Your task to perform on an android device: Search for the best 4K TV Image 0: 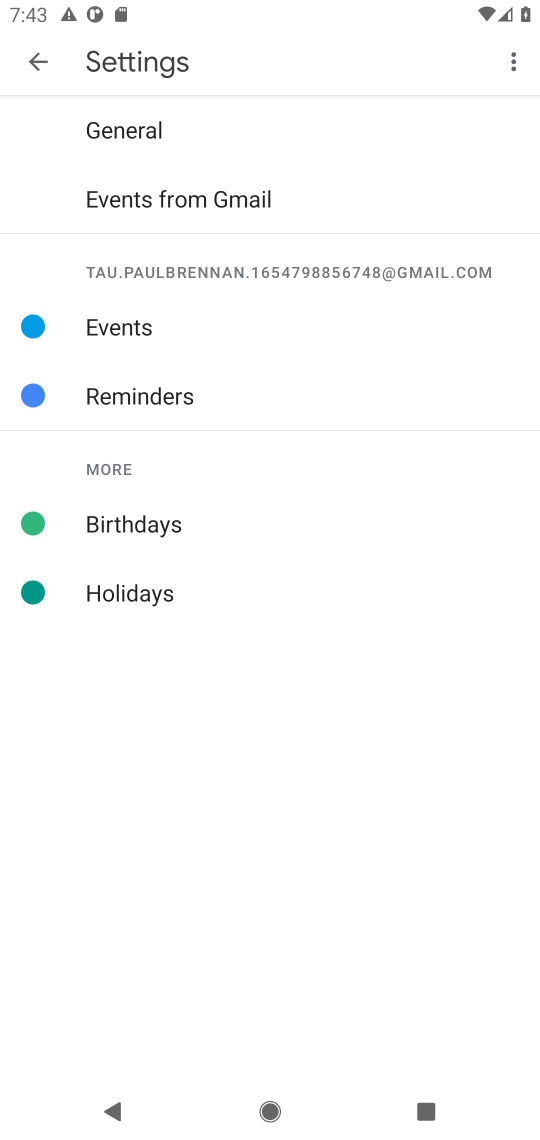
Step 0: task complete